Your task to perform on an android device: change text size in settings app Image 0: 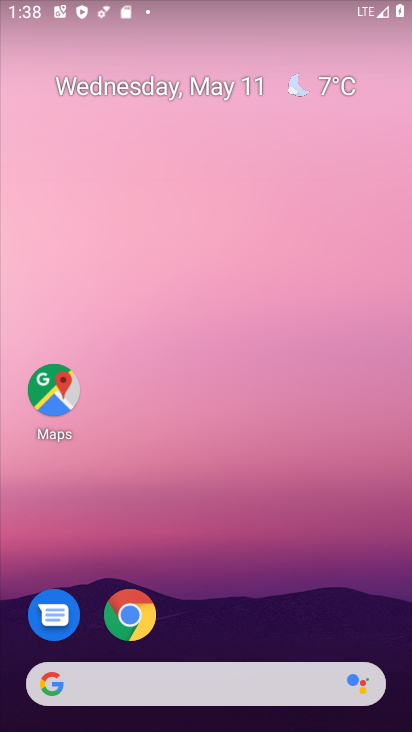
Step 0: drag from (314, 563) to (383, 19)
Your task to perform on an android device: change text size in settings app Image 1: 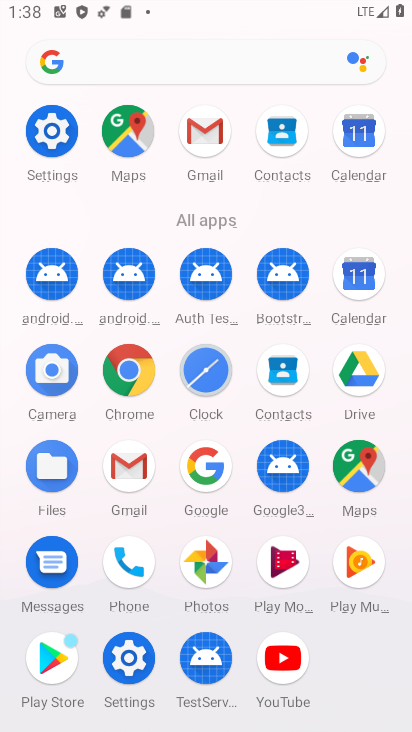
Step 1: click (58, 138)
Your task to perform on an android device: change text size in settings app Image 2: 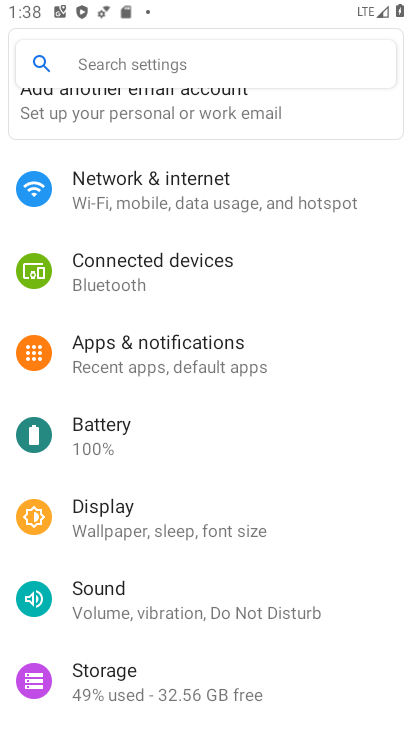
Step 2: drag from (267, 661) to (395, 128)
Your task to perform on an android device: change text size in settings app Image 3: 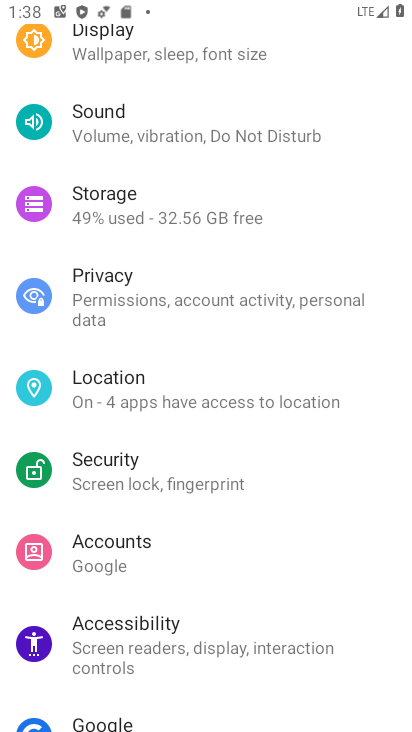
Step 3: drag from (244, 638) to (309, 160)
Your task to perform on an android device: change text size in settings app Image 4: 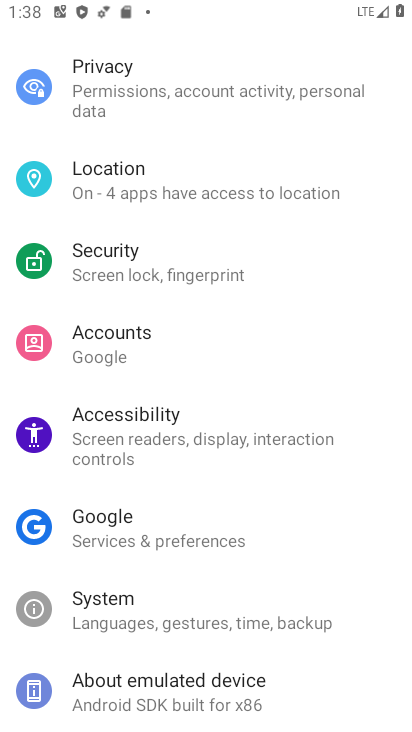
Step 4: click (98, 617)
Your task to perform on an android device: change text size in settings app Image 5: 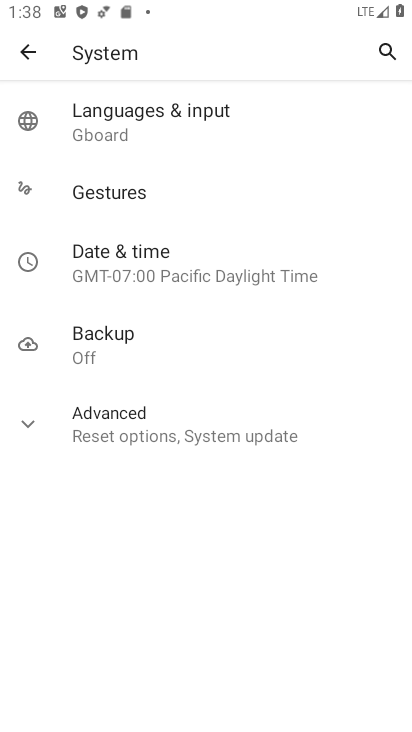
Step 5: click (181, 119)
Your task to perform on an android device: change text size in settings app Image 6: 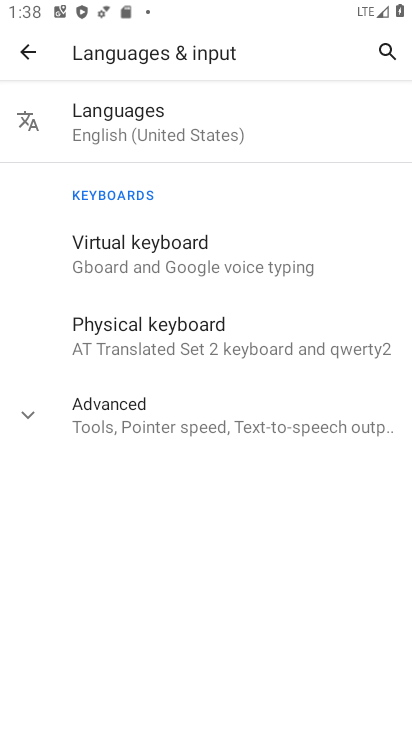
Step 6: click (23, 44)
Your task to perform on an android device: change text size in settings app Image 7: 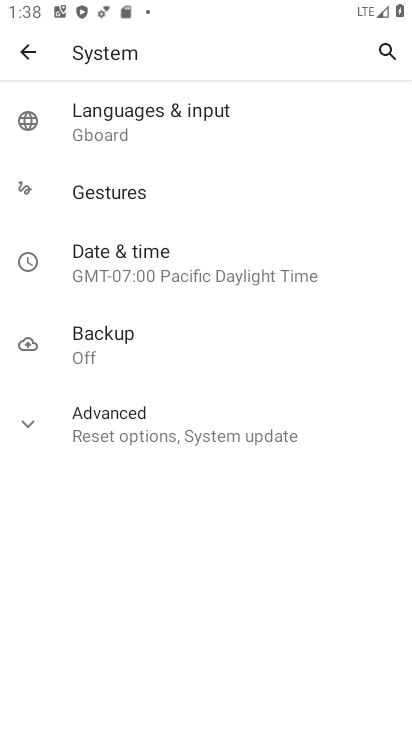
Step 7: click (25, 46)
Your task to perform on an android device: change text size in settings app Image 8: 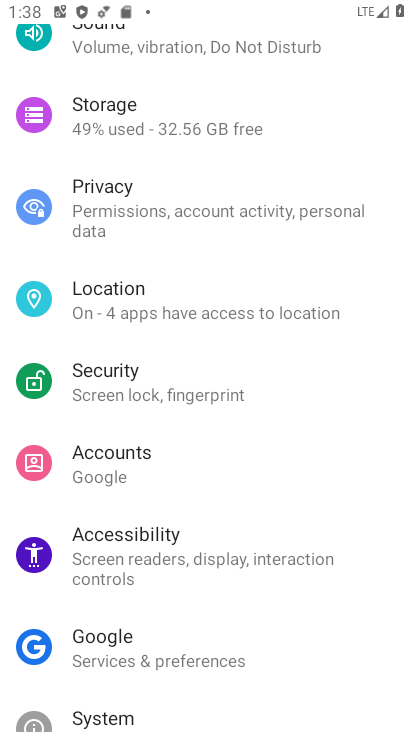
Step 8: drag from (190, 125) to (254, 648)
Your task to perform on an android device: change text size in settings app Image 9: 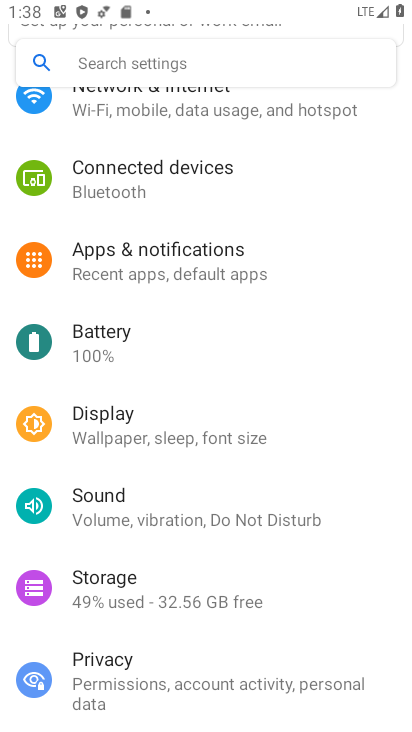
Step 9: click (161, 439)
Your task to perform on an android device: change text size in settings app Image 10: 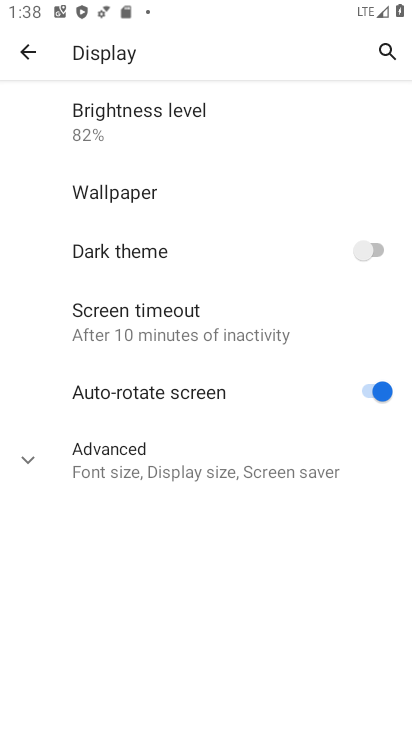
Step 10: click (183, 463)
Your task to perform on an android device: change text size in settings app Image 11: 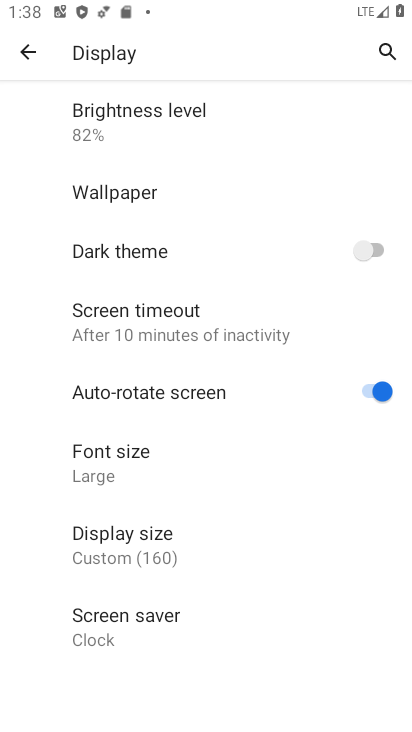
Step 11: click (105, 462)
Your task to perform on an android device: change text size in settings app Image 12: 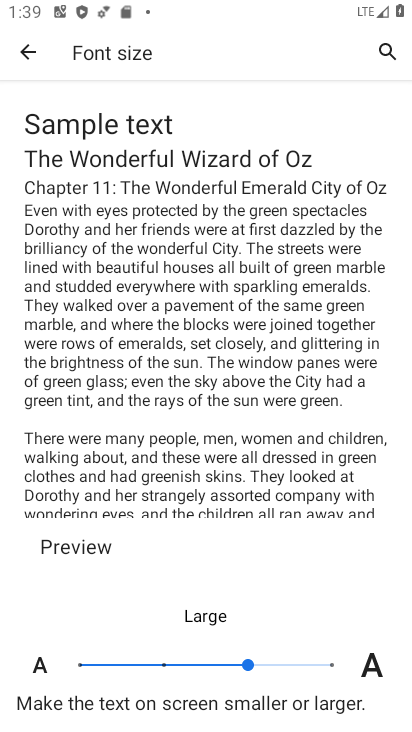
Step 12: click (166, 653)
Your task to perform on an android device: change text size in settings app Image 13: 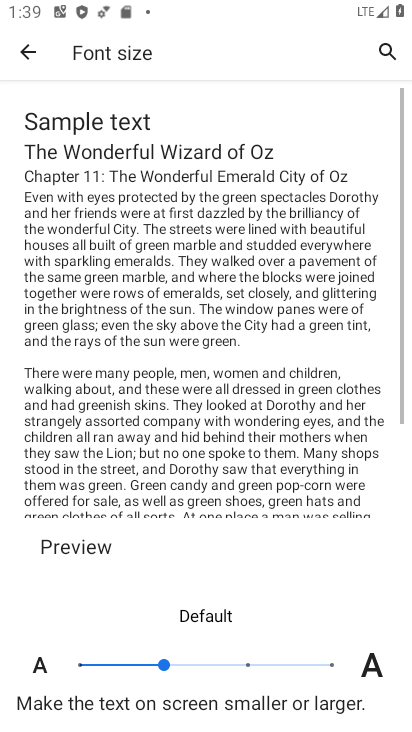
Step 13: click (165, 659)
Your task to perform on an android device: change text size in settings app Image 14: 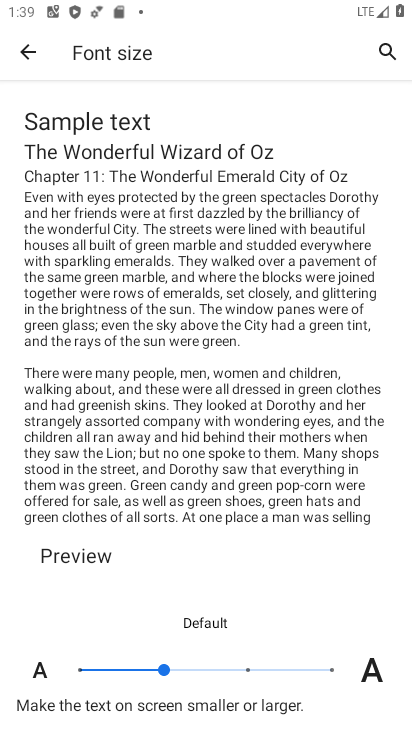
Step 14: click (90, 664)
Your task to perform on an android device: change text size in settings app Image 15: 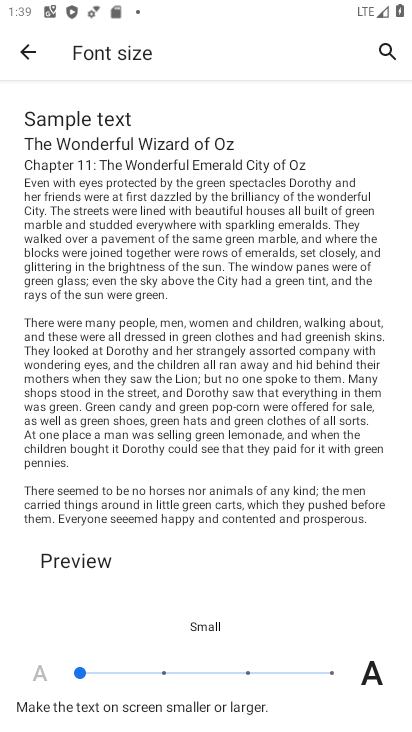
Step 15: task complete